Your task to perform on an android device: Open sound settings Image 0: 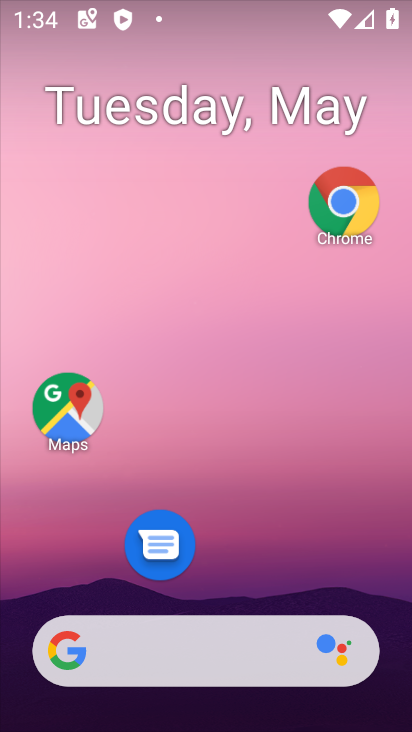
Step 0: drag from (213, 594) to (239, 259)
Your task to perform on an android device: Open sound settings Image 1: 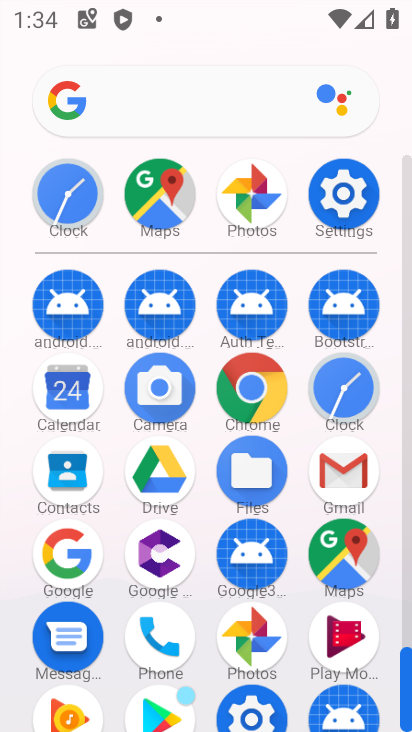
Step 1: click (363, 169)
Your task to perform on an android device: Open sound settings Image 2: 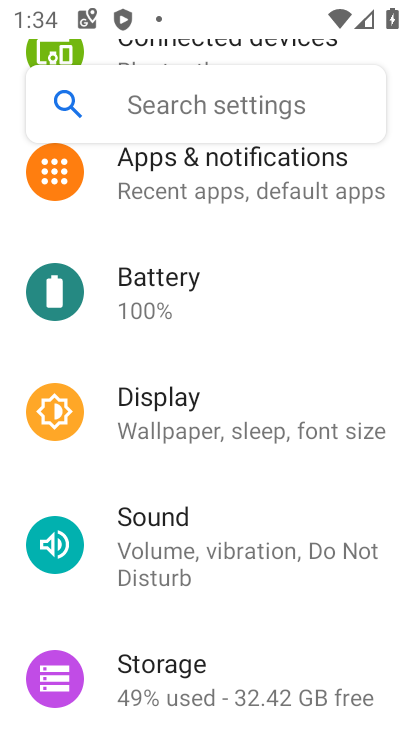
Step 2: click (178, 521)
Your task to perform on an android device: Open sound settings Image 3: 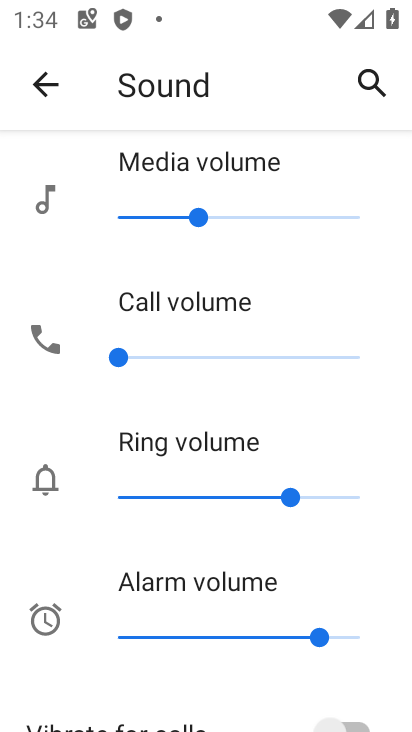
Step 3: task complete